Your task to perform on an android device: Play the last video I watched on Youtube Image 0: 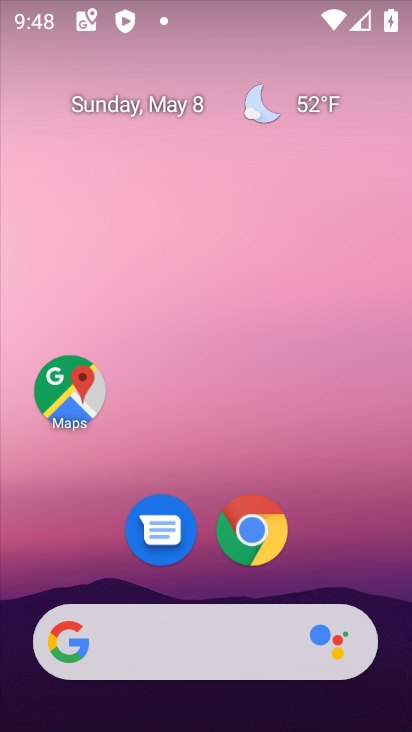
Step 0: drag from (376, 566) to (371, 58)
Your task to perform on an android device: Play the last video I watched on Youtube Image 1: 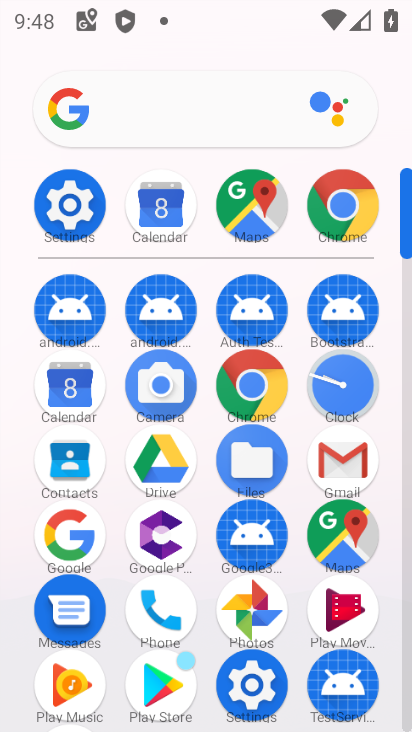
Step 1: drag from (201, 648) to (218, 283)
Your task to perform on an android device: Play the last video I watched on Youtube Image 2: 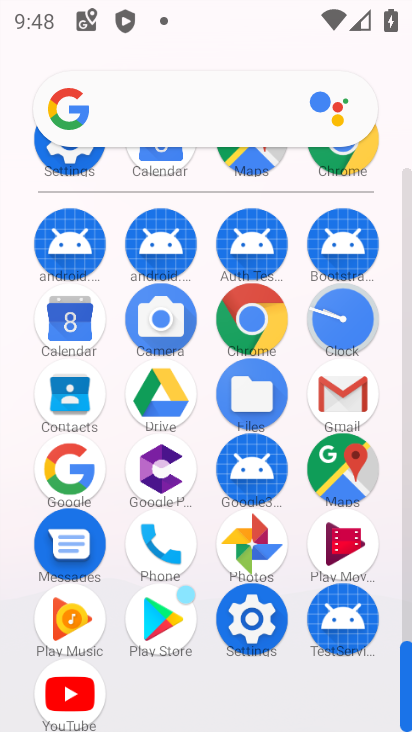
Step 2: click (50, 710)
Your task to perform on an android device: Play the last video I watched on Youtube Image 3: 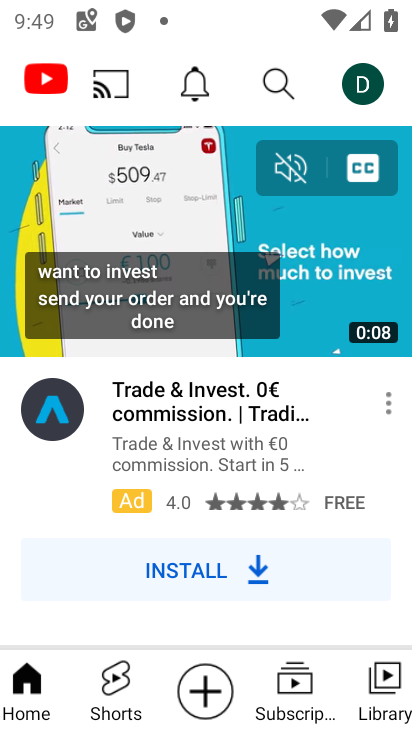
Step 3: click (382, 722)
Your task to perform on an android device: Play the last video I watched on Youtube Image 4: 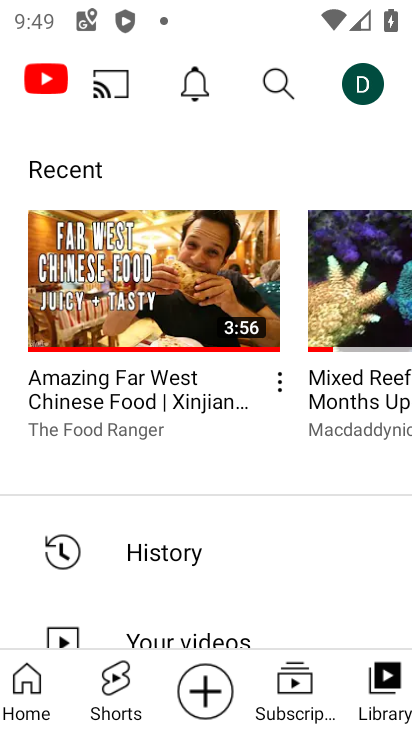
Step 4: task complete